Your task to perform on an android device: Open Chrome and go to settings Image 0: 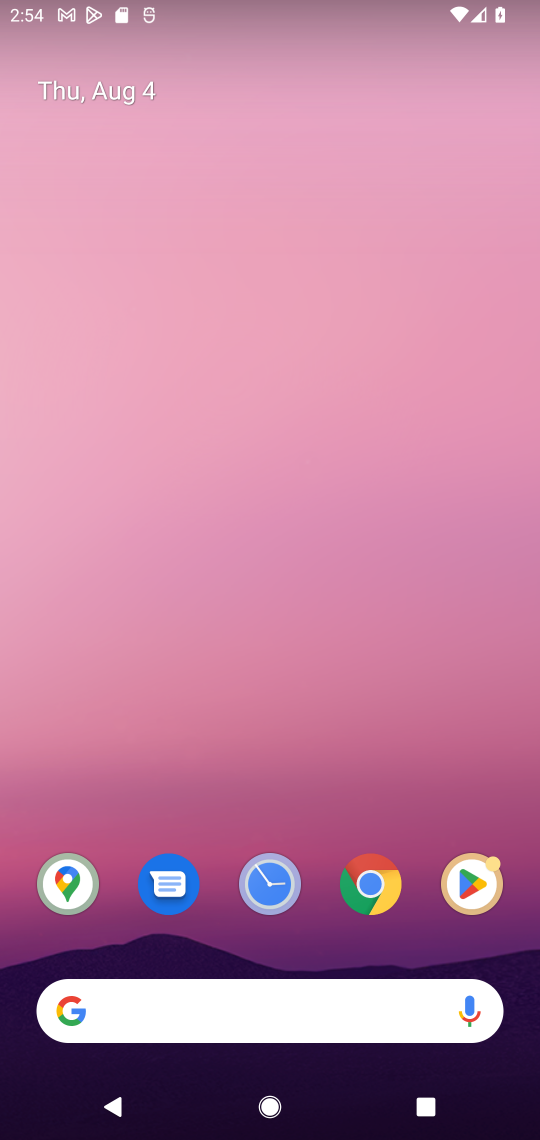
Step 0: click (376, 879)
Your task to perform on an android device: Open Chrome and go to settings Image 1: 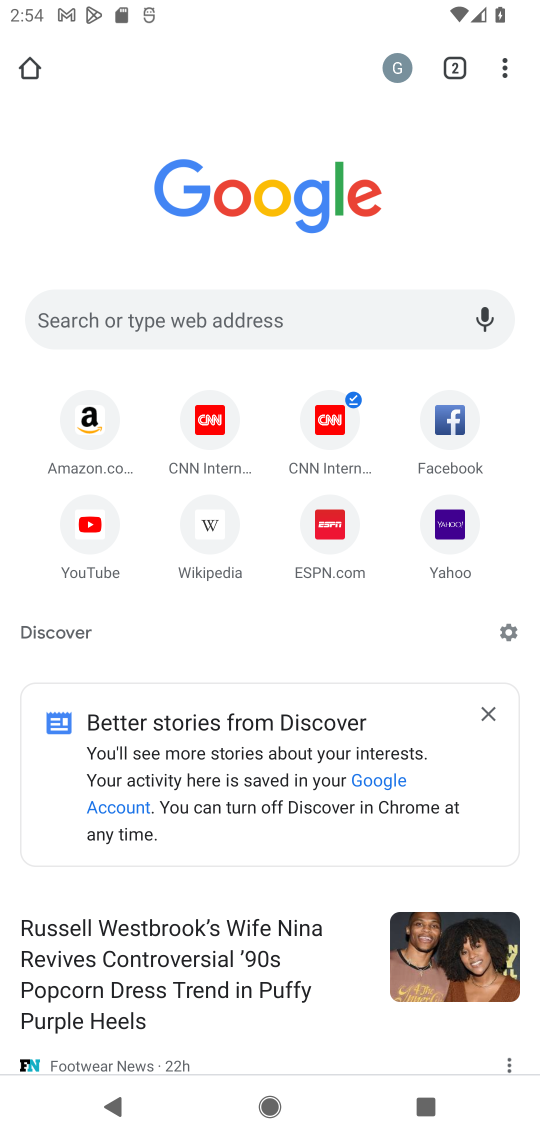
Step 1: click (504, 91)
Your task to perform on an android device: Open Chrome and go to settings Image 2: 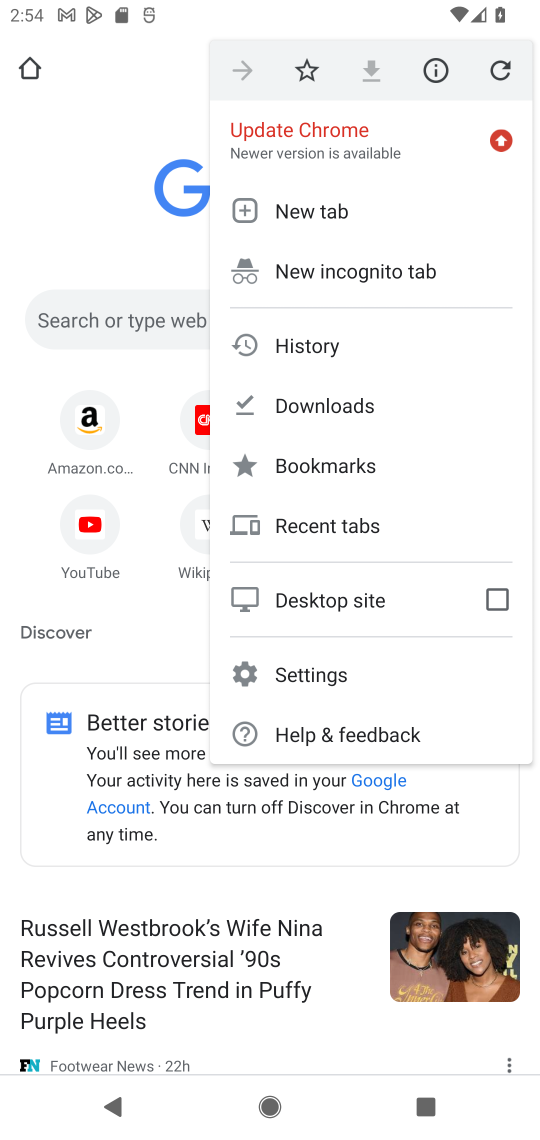
Step 2: click (405, 674)
Your task to perform on an android device: Open Chrome and go to settings Image 3: 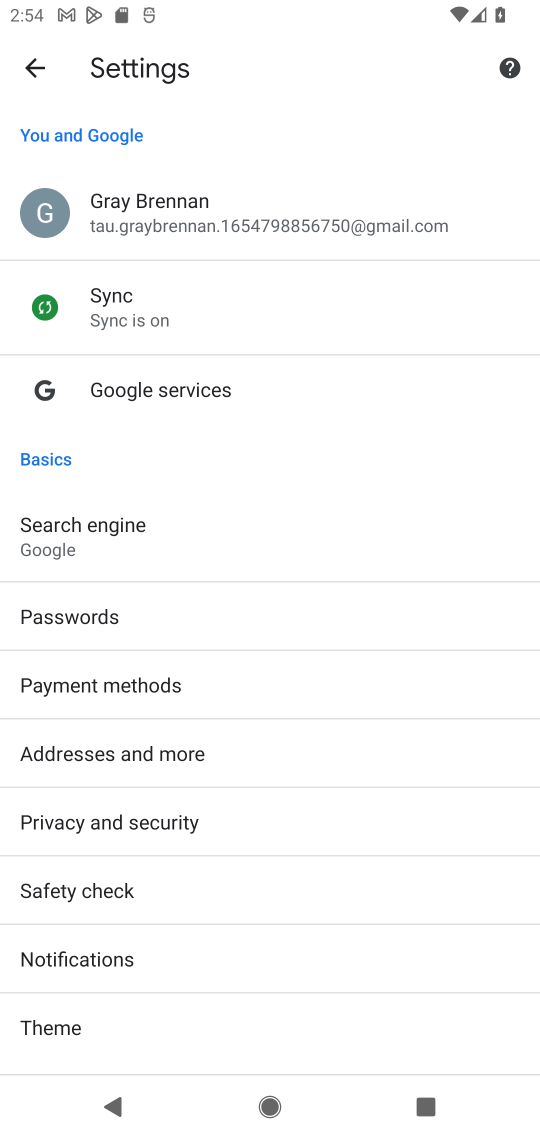
Step 3: click (405, 674)
Your task to perform on an android device: Open Chrome and go to settings Image 4: 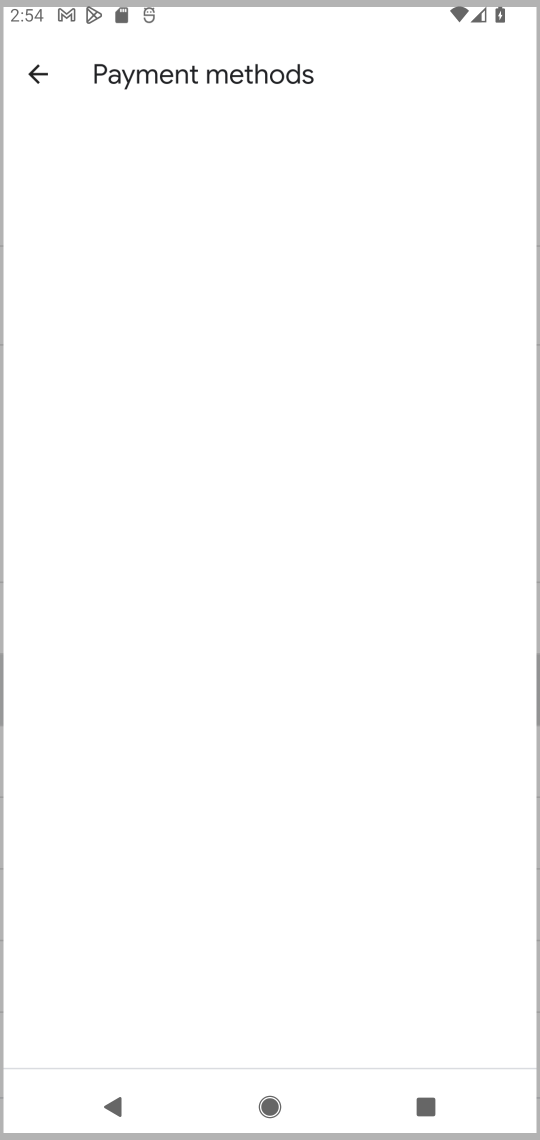
Step 4: click (405, 674)
Your task to perform on an android device: Open Chrome and go to settings Image 5: 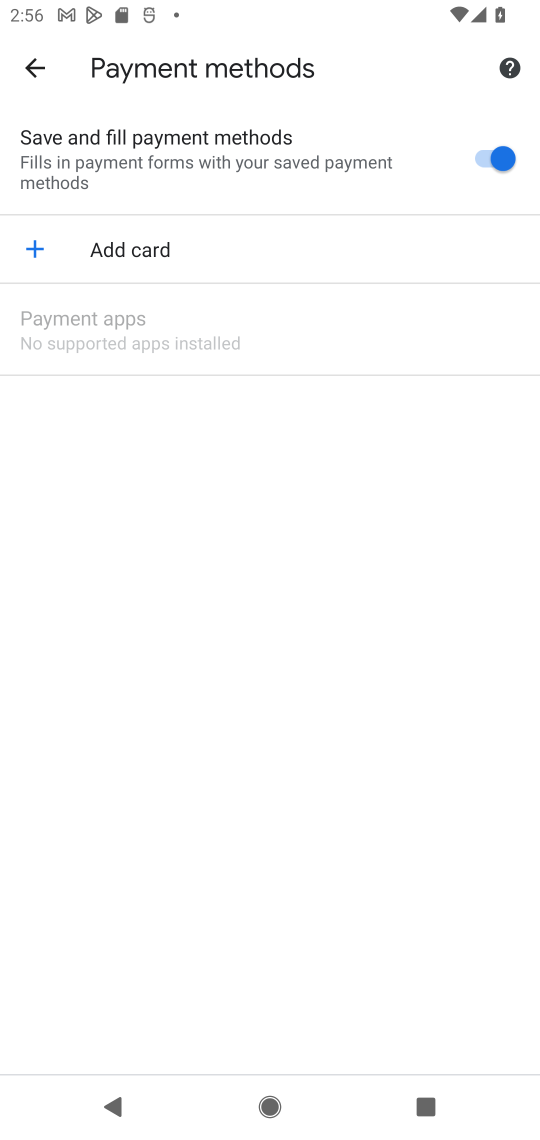
Step 5: task complete